Your task to perform on an android device: find photos in the google photos app Image 0: 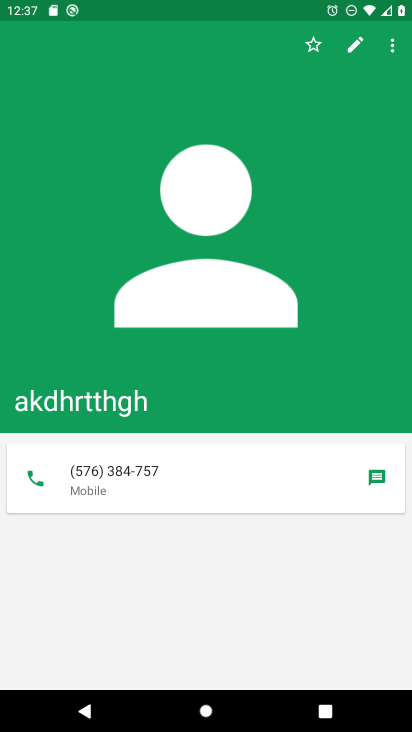
Step 0: press home button
Your task to perform on an android device: find photos in the google photos app Image 1: 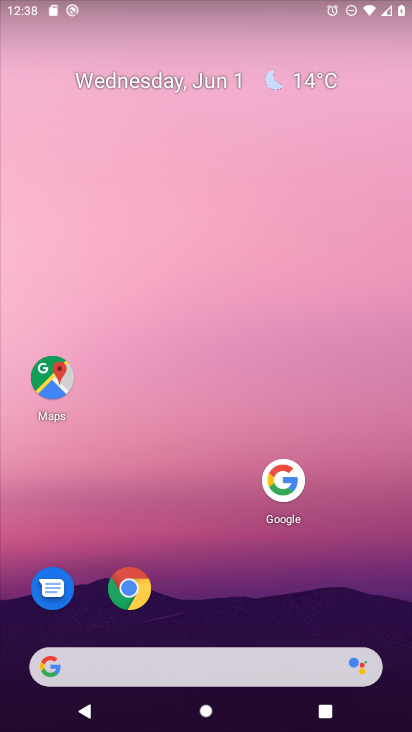
Step 1: drag from (134, 655) to (220, 61)
Your task to perform on an android device: find photos in the google photos app Image 2: 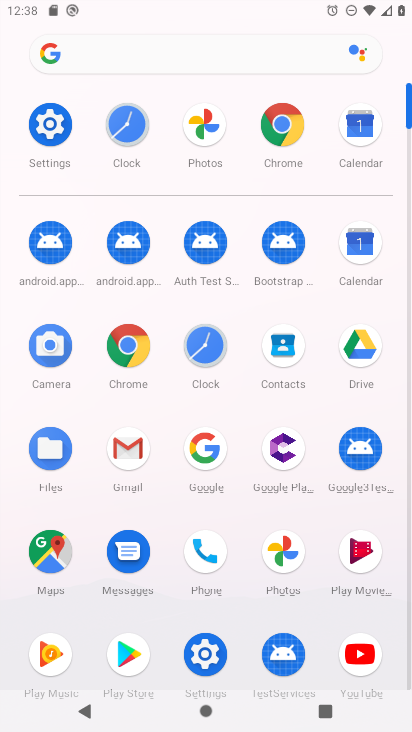
Step 2: click (287, 560)
Your task to perform on an android device: find photos in the google photos app Image 3: 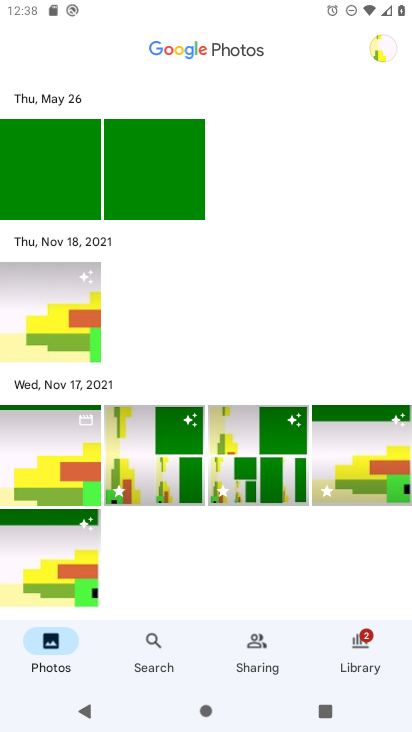
Step 3: task complete